Your task to perform on an android device: Open Amazon Image 0: 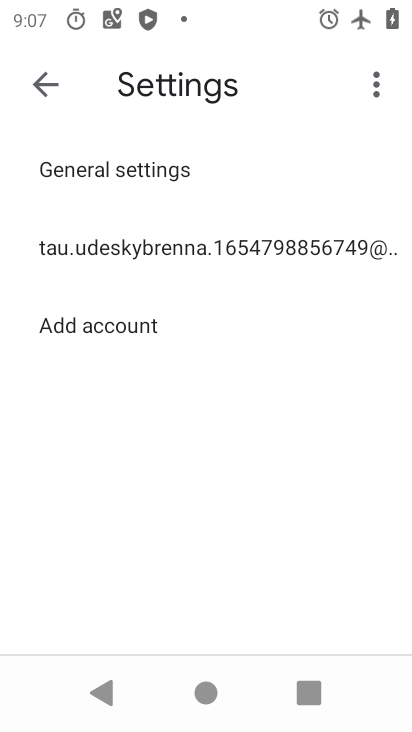
Step 0: press home button
Your task to perform on an android device: Open Amazon Image 1: 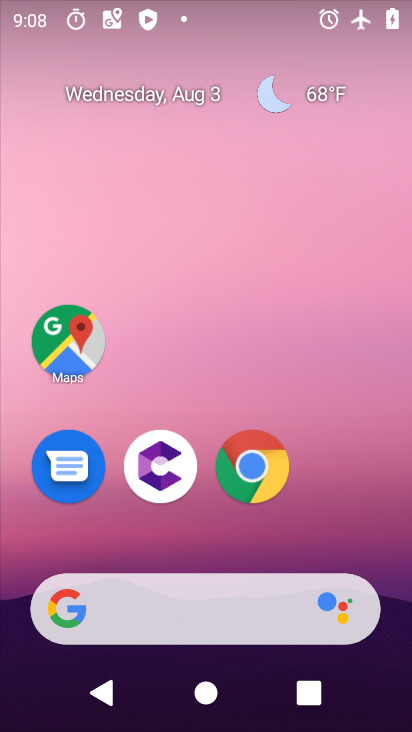
Step 1: drag from (356, 494) to (282, 55)
Your task to perform on an android device: Open Amazon Image 2: 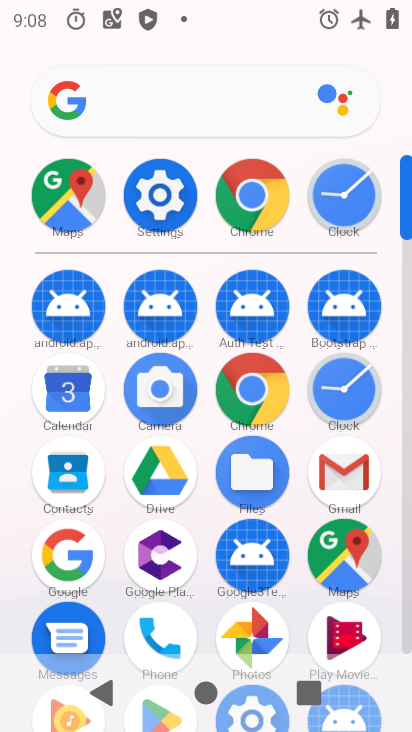
Step 2: click (251, 394)
Your task to perform on an android device: Open Amazon Image 3: 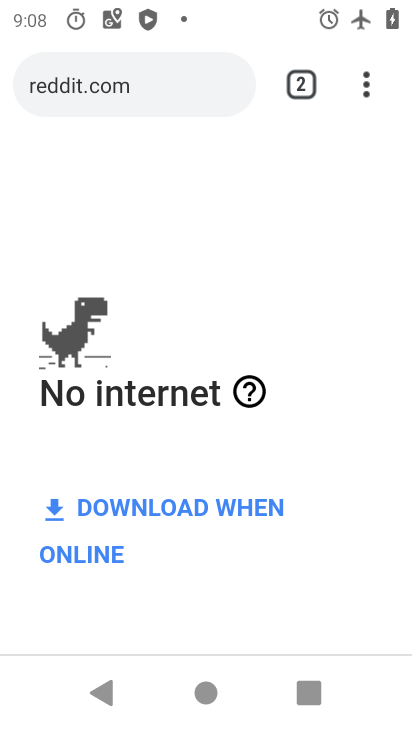
Step 3: click (209, 92)
Your task to perform on an android device: Open Amazon Image 4: 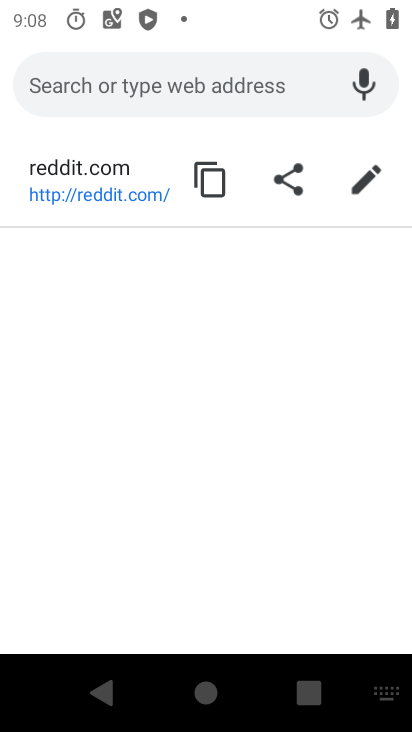
Step 4: type "Amazon"
Your task to perform on an android device: Open Amazon Image 5: 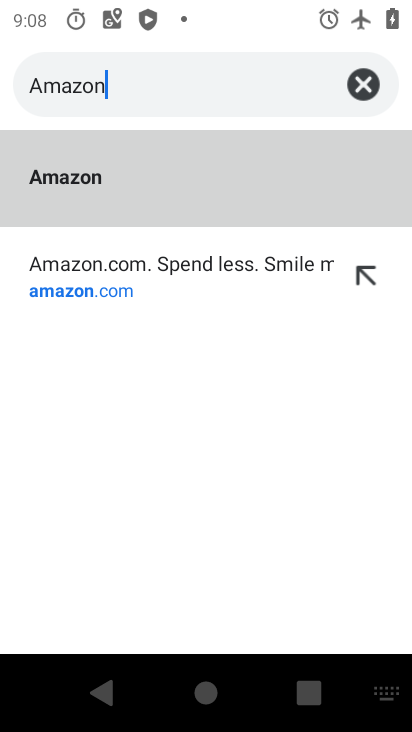
Step 5: click (36, 295)
Your task to perform on an android device: Open Amazon Image 6: 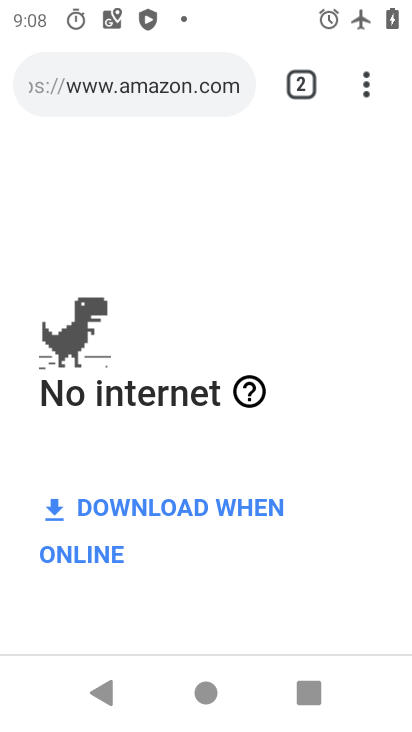
Step 6: task complete